Your task to perform on an android device: turn off location Image 0: 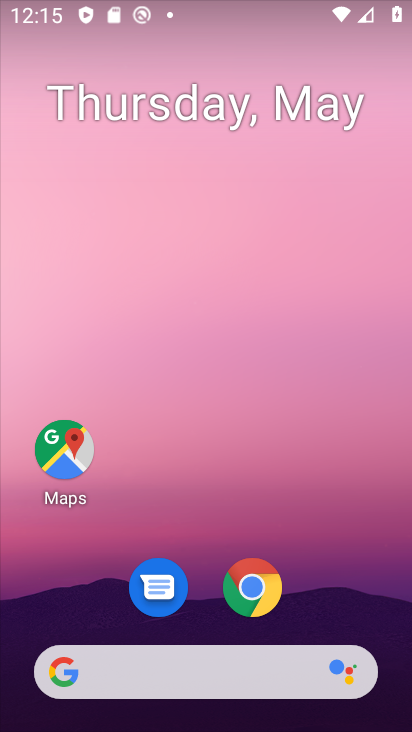
Step 0: drag from (257, 688) to (349, 79)
Your task to perform on an android device: turn off location Image 1: 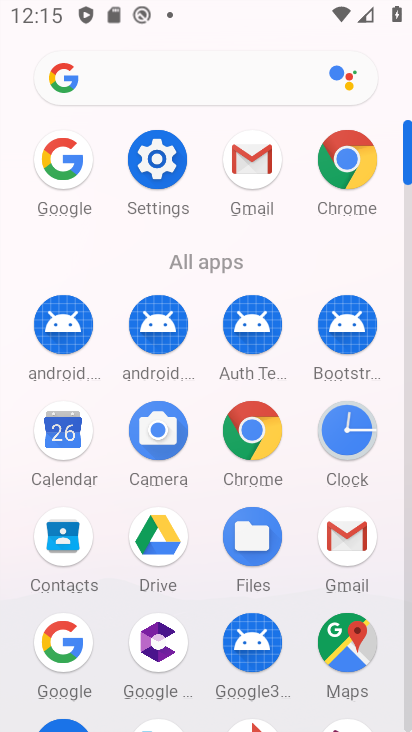
Step 1: click (150, 149)
Your task to perform on an android device: turn off location Image 2: 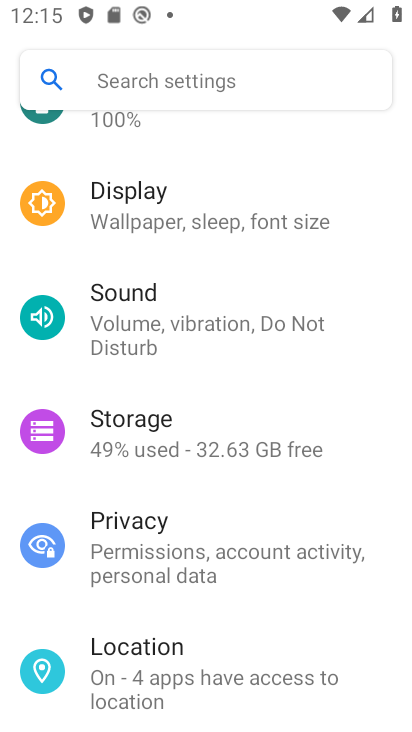
Step 2: click (204, 658)
Your task to perform on an android device: turn off location Image 3: 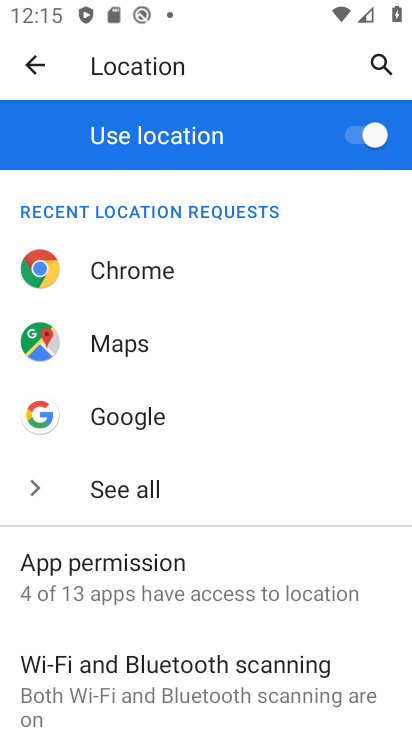
Step 3: drag from (205, 697) to (247, 720)
Your task to perform on an android device: turn off location Image 4: 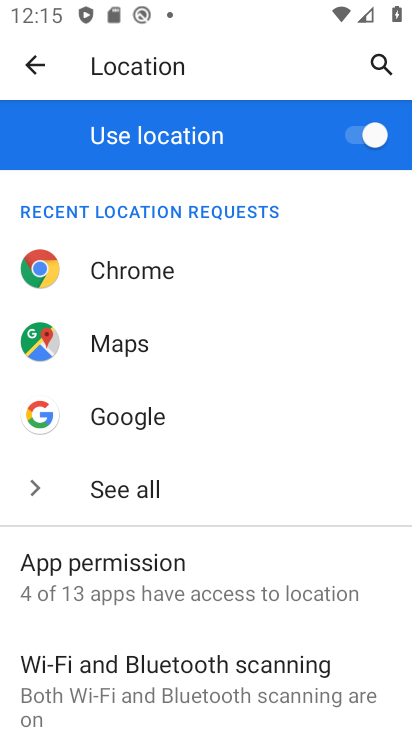
Step 4: click (356, 138)
Your task to perform on an android device: turn off location Image 5: 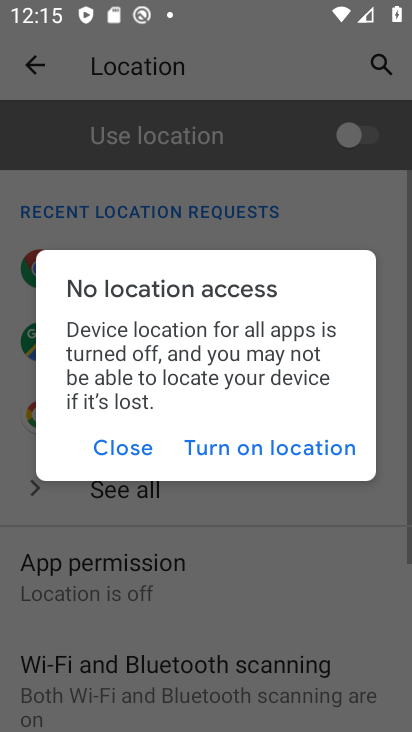
Step 5: task complete